Your task to perform on an android device: Go to Reddit.com Image 0: 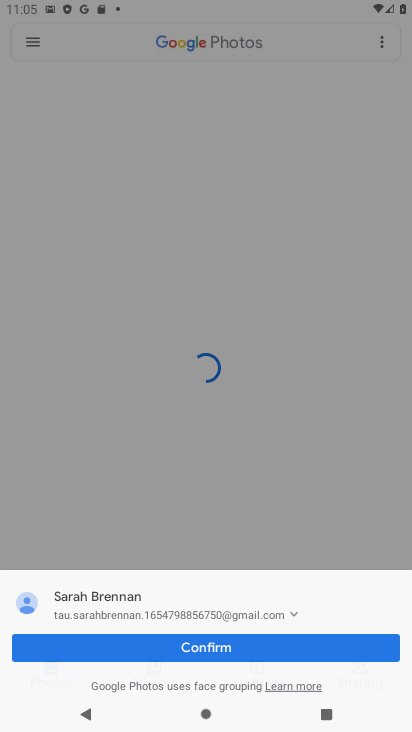
Step 0: press home button
Your task to perform on an android device: Go to Reddit.com Image 1: 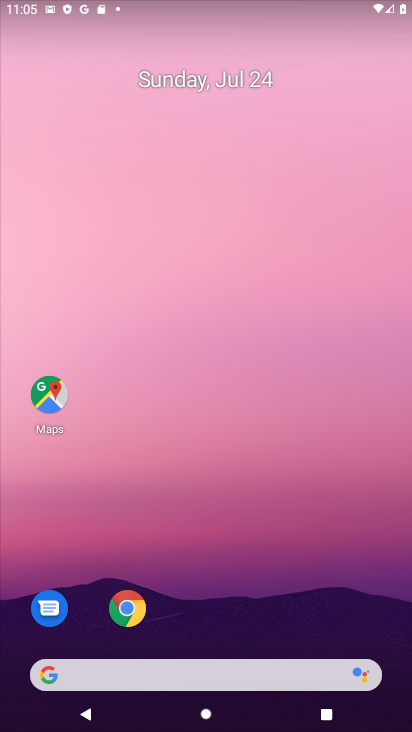
Step 1: drag from (223, 489) to (7, 191)
Your task to perform on an android device: Go to Reddit.com Image 2: 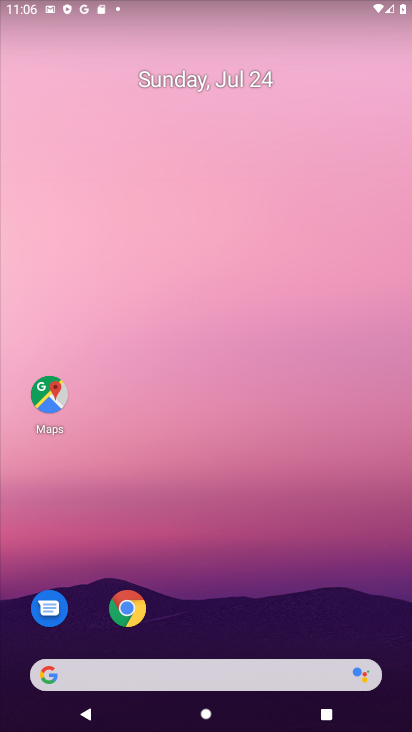
Step 2: drag from (273, 516) to (178, 14)
Your task to perform on an android device: Go to Reddit.com Image 3: 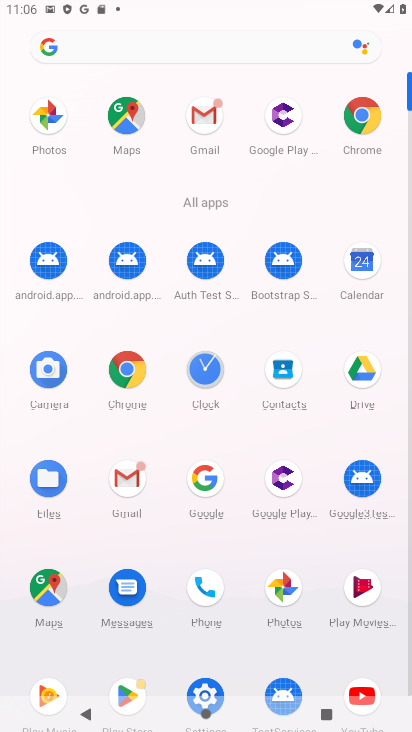
Step 3: click (378, 122)
Your task to perform on an android device: Go to Reddit.com Image 4: 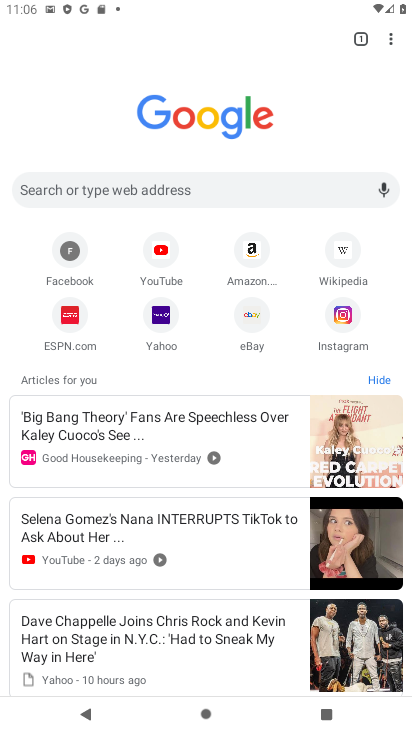
Step 4: click (162, 173)
Your task to perform on an android device: Go to Reddit.com Image 5: 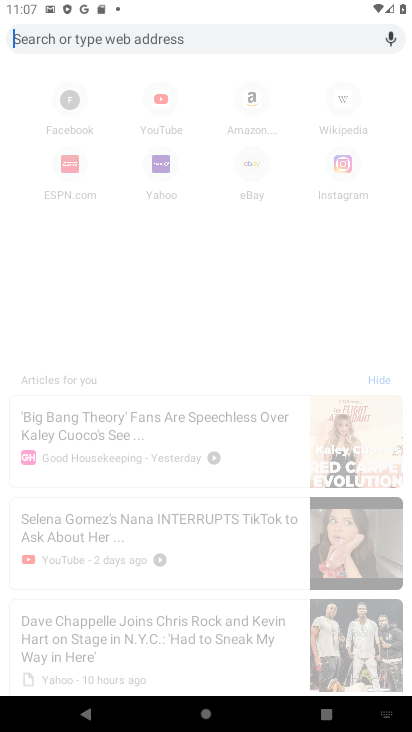
Step 5: type "Reddit.com"
Your task to perform on an android device: Go to Reddit.com Image 6: 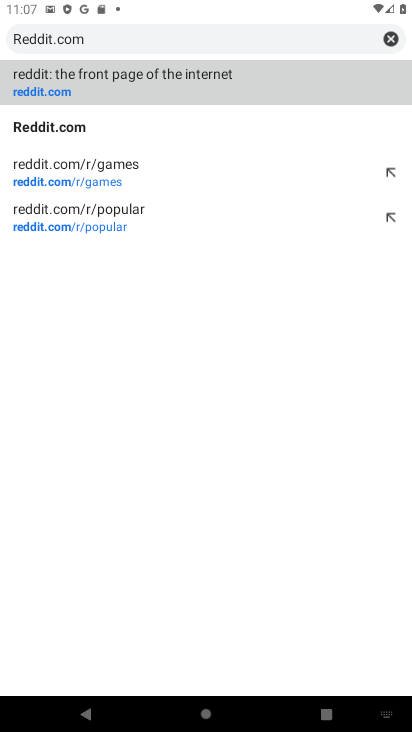
Step 6: click (78, 102)
Your task to perform on an android device: Go to Reddit.com Image 7: 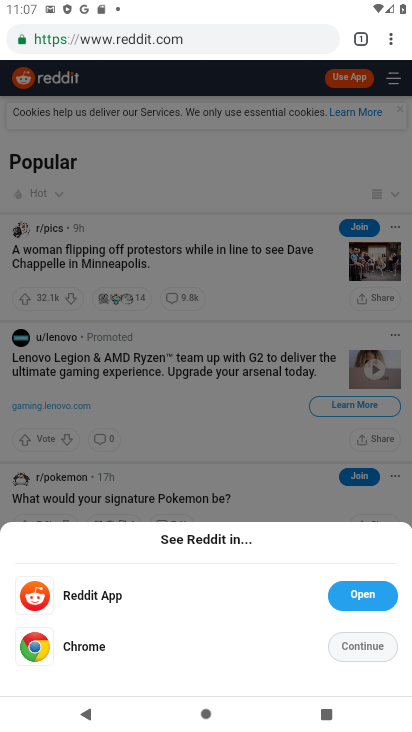
Step 7: task complete